Your task to perform on an android device: Open calendar and show me the second week of next month Image 0: 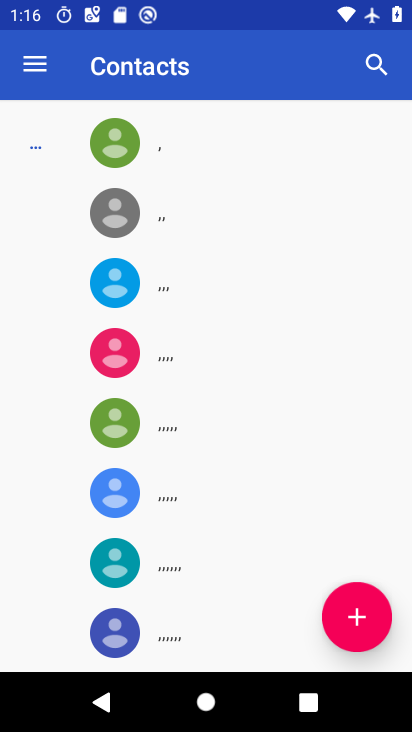
Step 0: press home button
Your task to perform on an android device: Open calendar and show me the second week of next month Image 1: 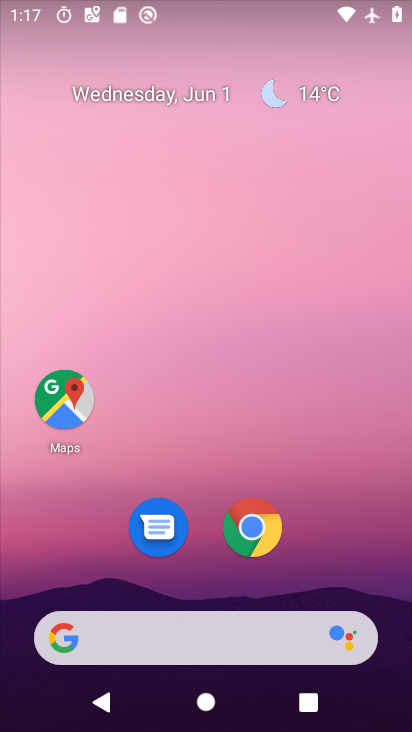
Step 1: drag from (318, 569) to (305, 3)
Your task to perform on an android device: Open calendar and show me the second week of next month Image 2: 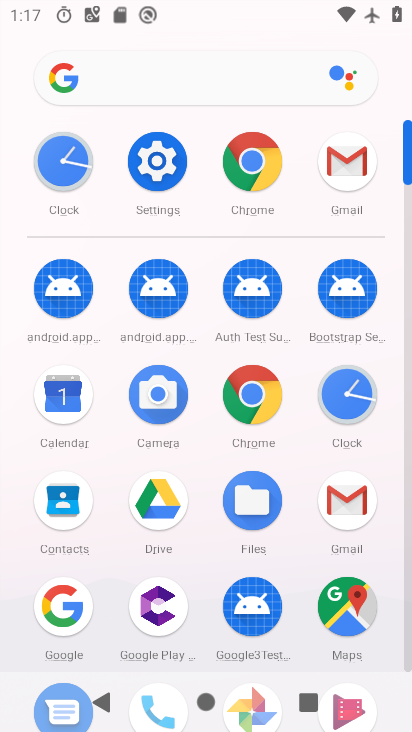
Step 2: click (52, 394)
Your task to perform on an android device: Open calendar and show me the second week of next month Image 3: 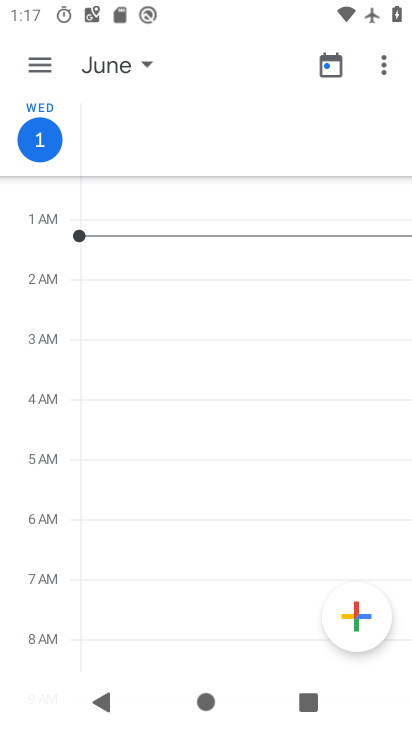
Step 3: click (144, 66)
Your task to perform on an android device: Open calendar and show me the second week of next month Image 4: 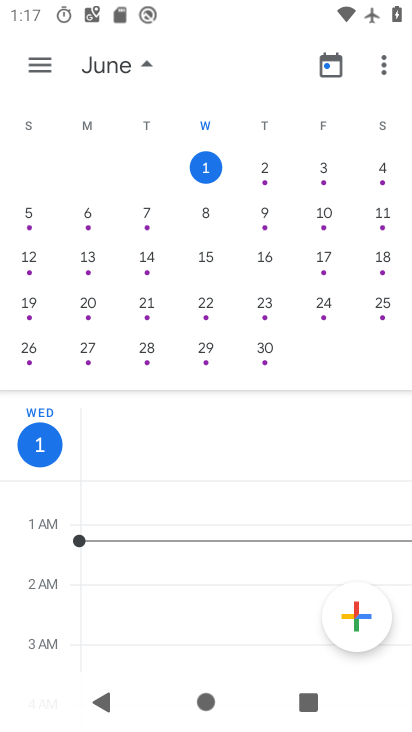
Step 4: drag from (345, 202) to (8, 205)
Your task to perform on an android device: Open calendar and show me the second week of next month Image 5: 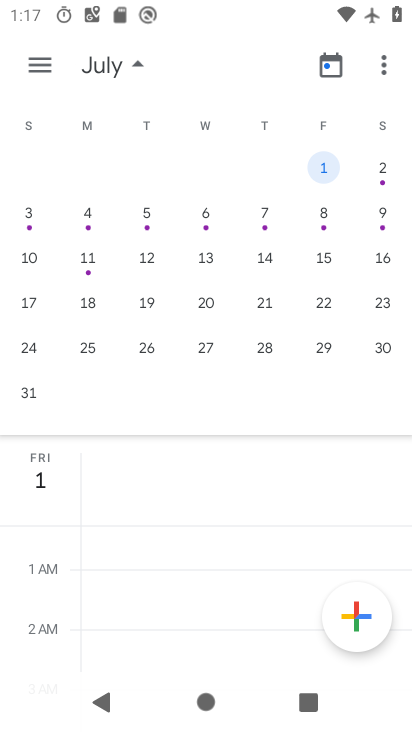
Step 5: click (31, 63)
Your task to perform on an android device: Open calendar and show me the second week of next month Image 6: 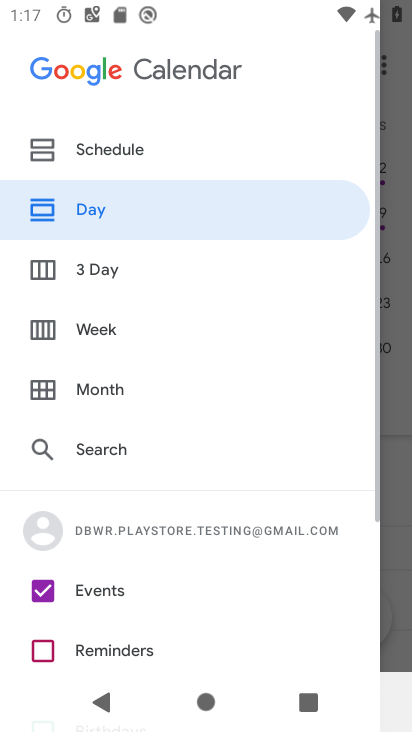
Step 6: click (58, 330)
Your task to perform on an android device: Open calendar and show me the second week of next month Image 7: 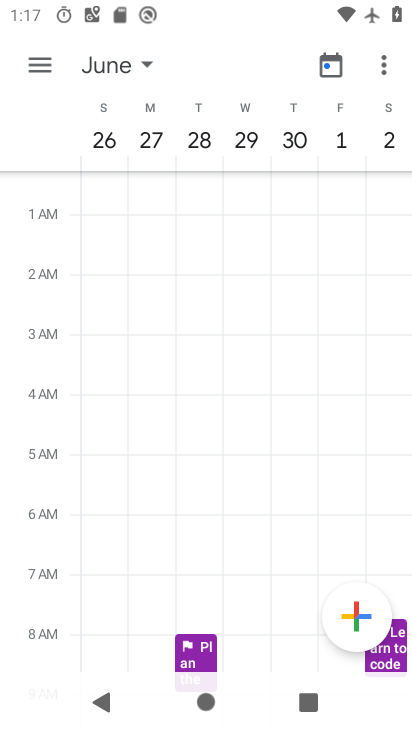
Step 7: task complete